Your task to perform on an android device: Go to network settings Image 0: 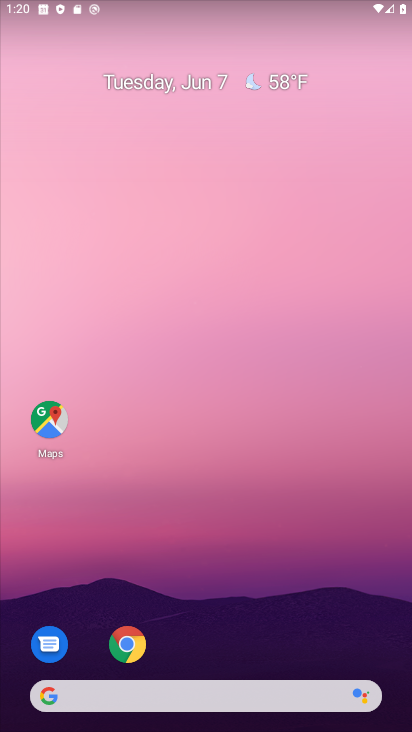
Step 0: drag from (177, 730) to (167, 244)
Your task to perform on an android device: Go to network settings Image 1: 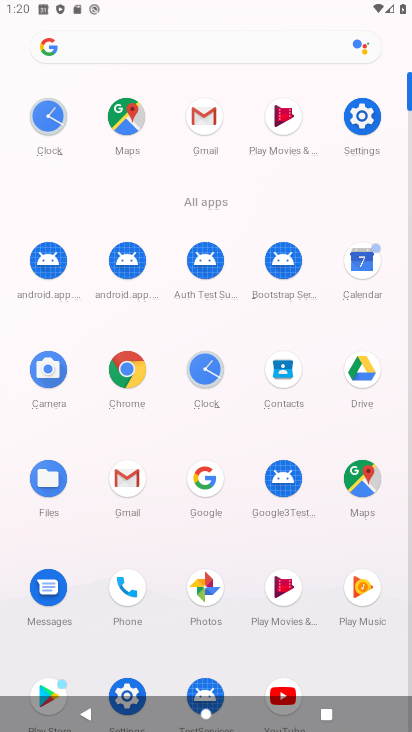
Step 1: click (120, 680)
Your task to perform on an android device: Go to network settings Image 2: 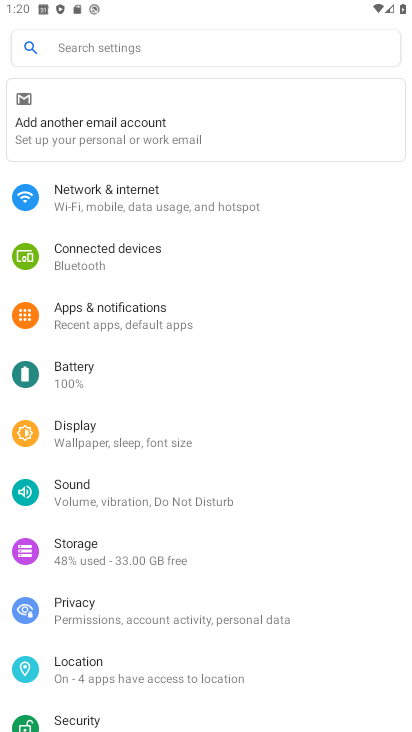
Step 2: click (132, 215)
Your task to perform on an android device: Go to network settings Image 3: 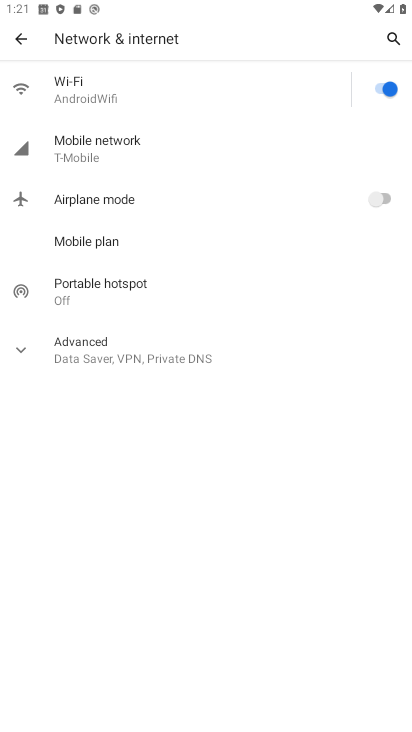
Step 3: click (134, 161)
Your task to perform on an android device: Go to network settings Image 4: 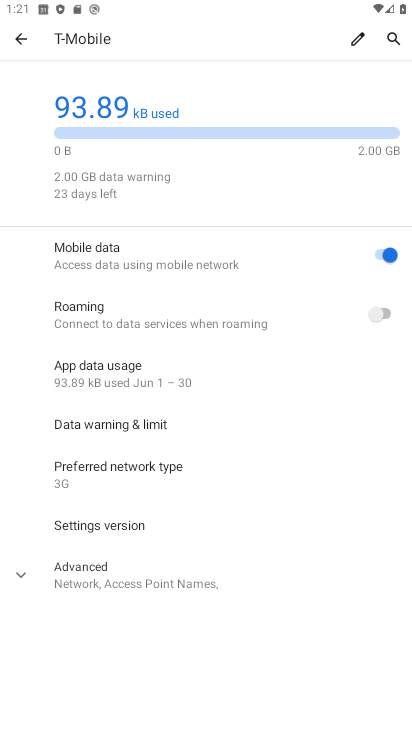
Step 4: click (82, 575)
Your task to perform on an android device: Go to network settings Image 5: 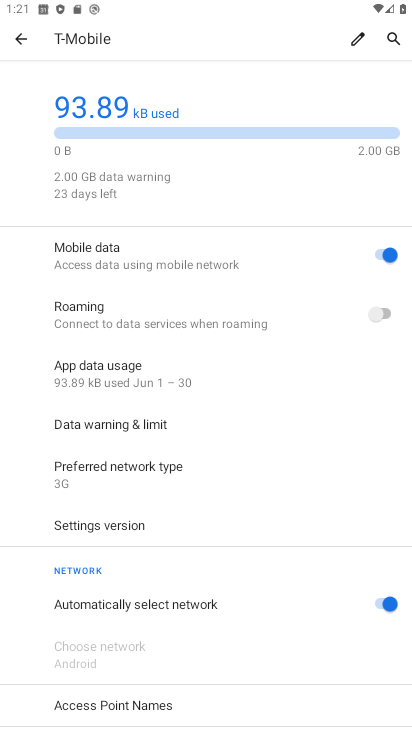
Step 5: task complete